Your task to perform on an android device: Open the web browser Image 0: 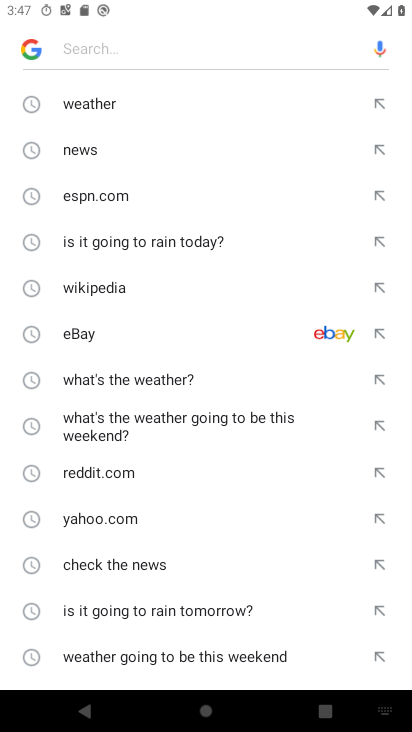
Step 0: press home button
Your task to perform on an android device: Open the web browser Image 1: 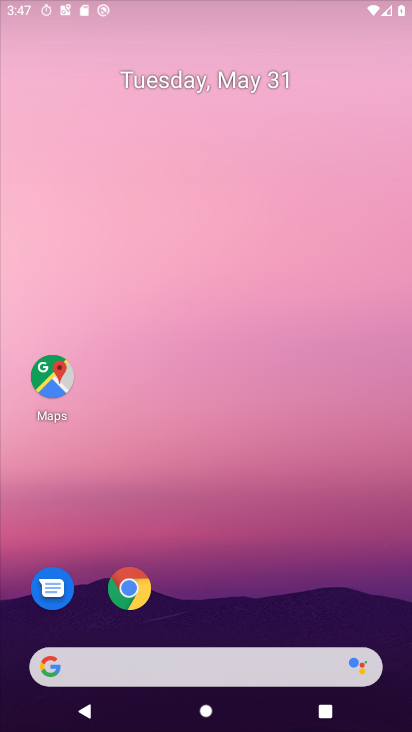
Step 1: drag from (226, 687) to (237, 278)
Your task to perform on an android device: Open the web browser Image 2: 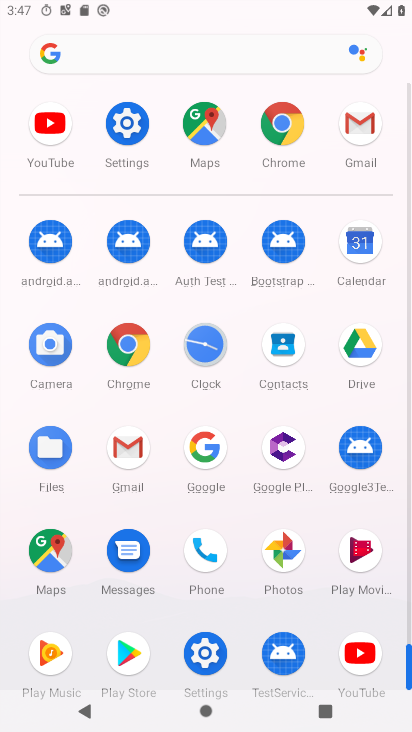
Step 2: click (293, 127)
Your task to perform on an android device: Open the web browser Image 3: 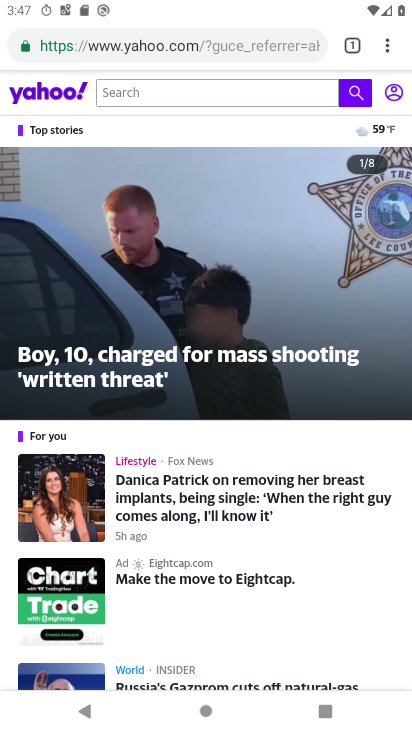
Step 3: task complete